Your task to perform on an android device: toggle airplane mode Image 0: 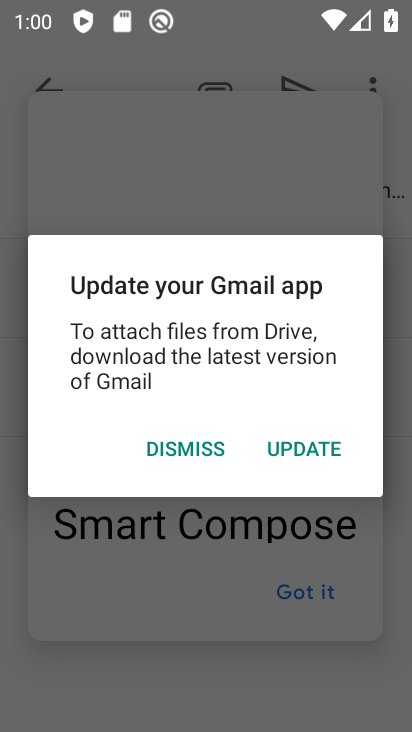
Step 0: click (325, 590)
Your task to perform on an android device: toggle airplane mode Image 1: 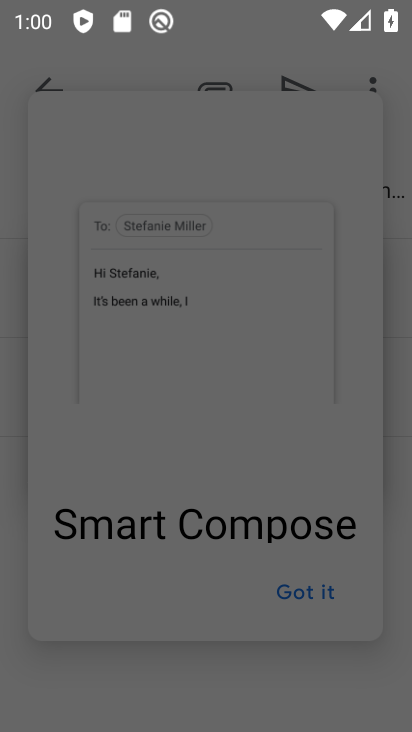
Step 1: press home button
Your task to perform on an android device: toggle airplane mode Image 2: 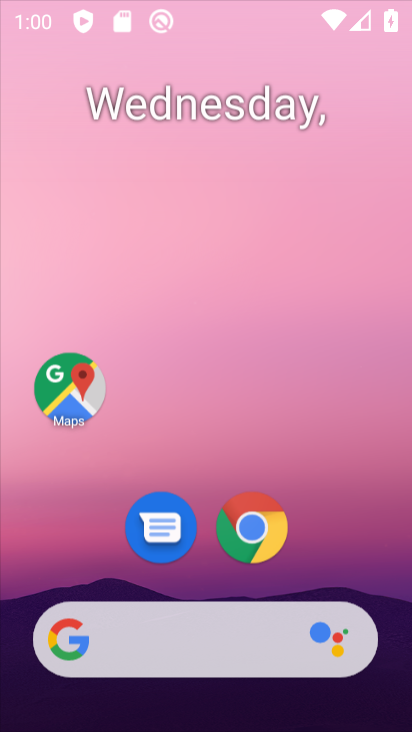
Step 2: drag from (242, 561) to (401, 115)
Your task to perform on an android device: toggle airplane mode Image 3: 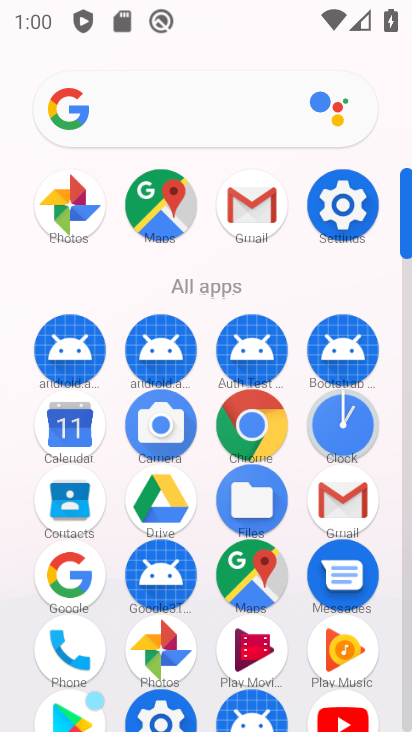
Step 3: click (354, 200)
Your task to perform on an android device: toggle airplane mode Image 4: 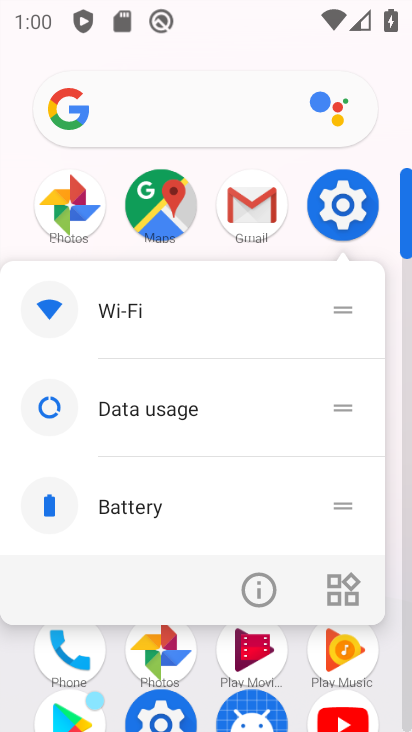
Step 4: click (267, 592)
Your task to perform on an android device: toggle airplane mode Image 5: 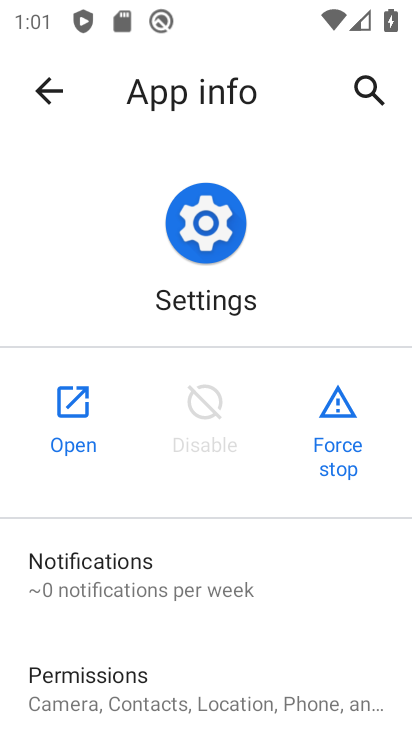
Step 5: click (67, 407)
Your task to perform on an android device: toggle airplane mode Image 6: 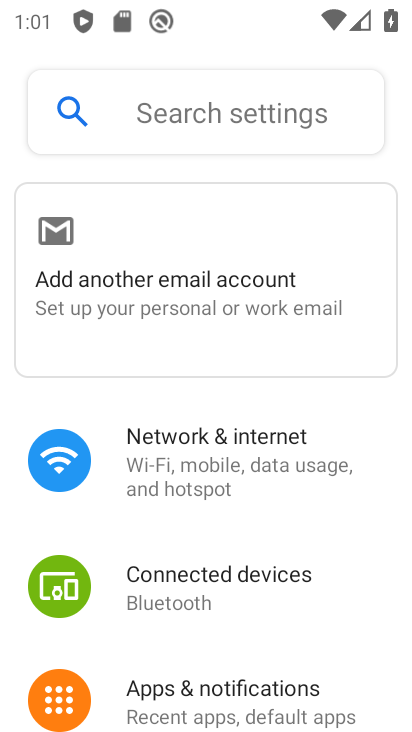
Step 6: click (218, 479)
Your task to perform on an android device: toggle airplane mode Image 7: 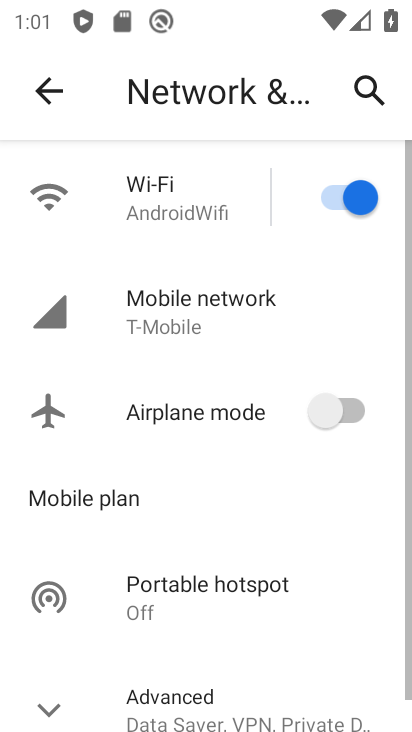
Step 7: click (197, 423)
Your task to perform on an android device: toggle airplane mode Image 8: 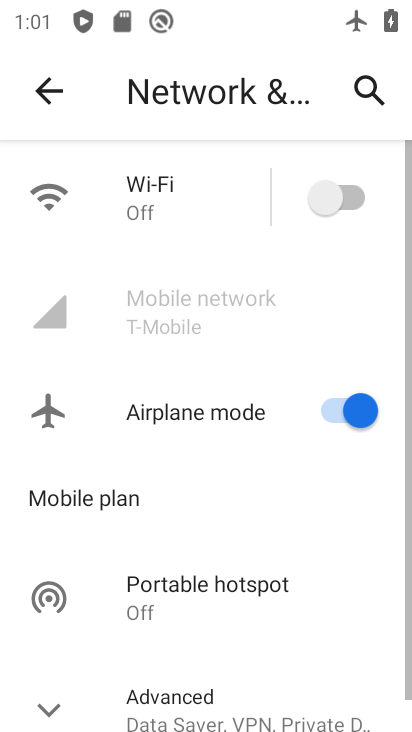
Step 8: task complete